Your task to perform on an android device: open a bookmark in the chrome app Image 0: 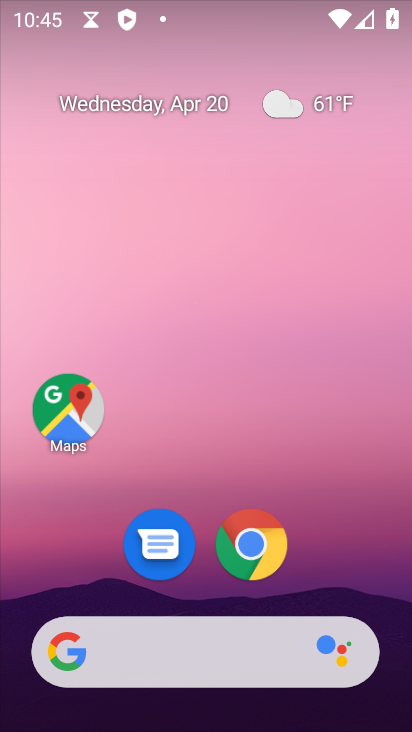
Step 0: drag from (151, 653) to (277, 163)
Your task to perform on an android device: open a bookmark in the chrome app Image 1: 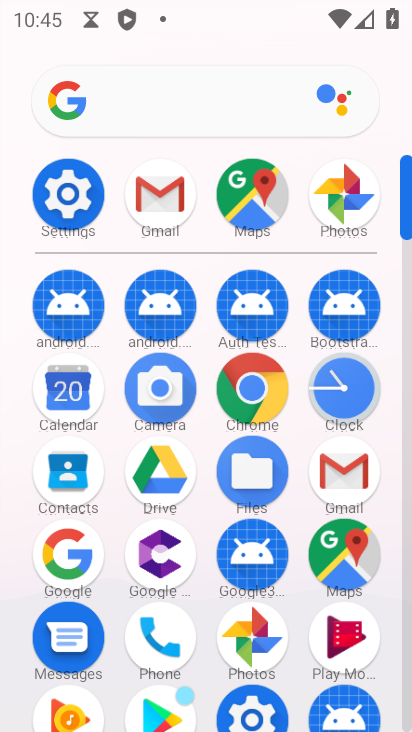
Step 1: click (250, 394)
Your task to perform on an android device: open a bookmark in the chrome app Image 2: 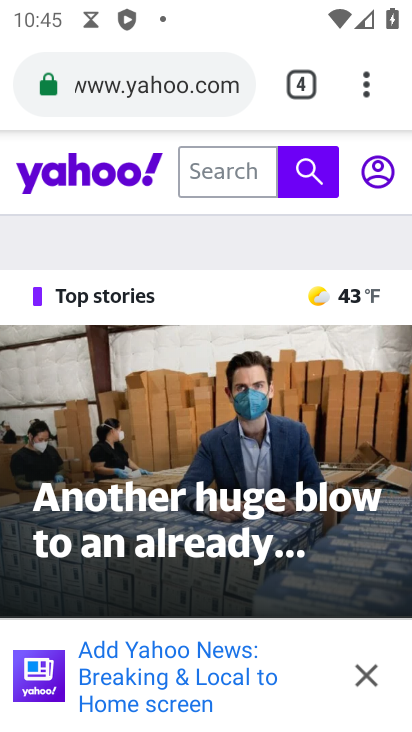
Step 2: click (360, 102)
Your task to perform on an android device: open a bookmark in the chrome app Image 3: 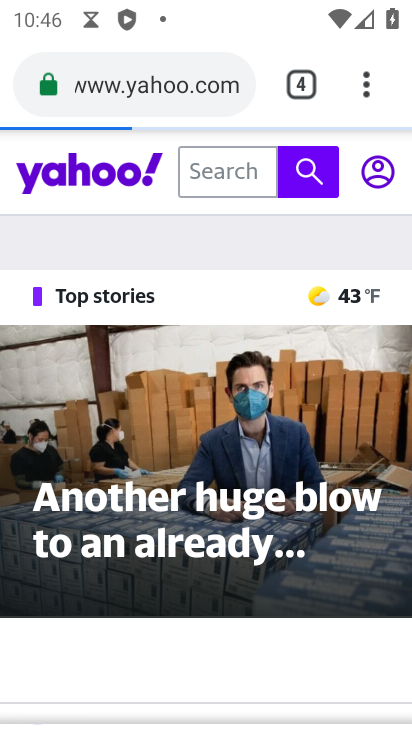
Step 3: click (353, 103)
Your task to perform on an android device: open a bookmark in the chrome app Image 4: 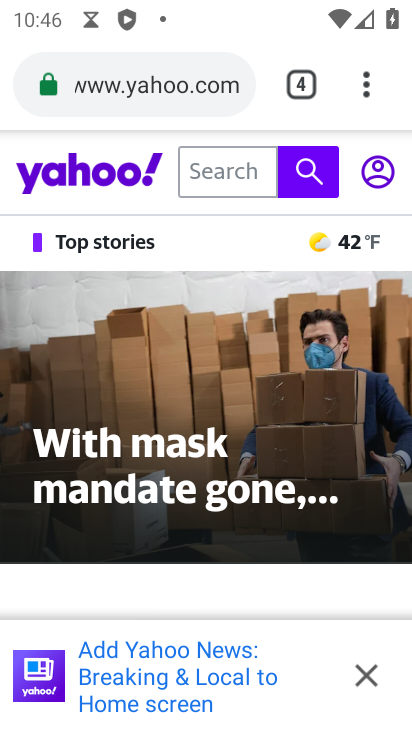
Step 4: click (354, 99)
Your task to perform on an android device: open a bookmark in the chrome app Image 5: 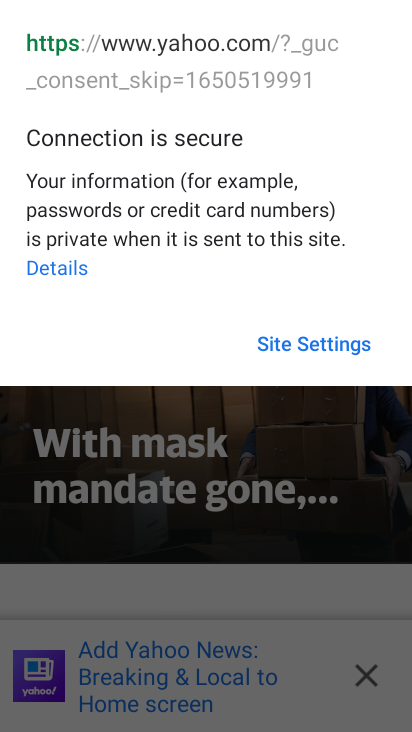
Step 5: press back button
Your task to perform on an android device: open a bookmark in the chrome app Image 6: 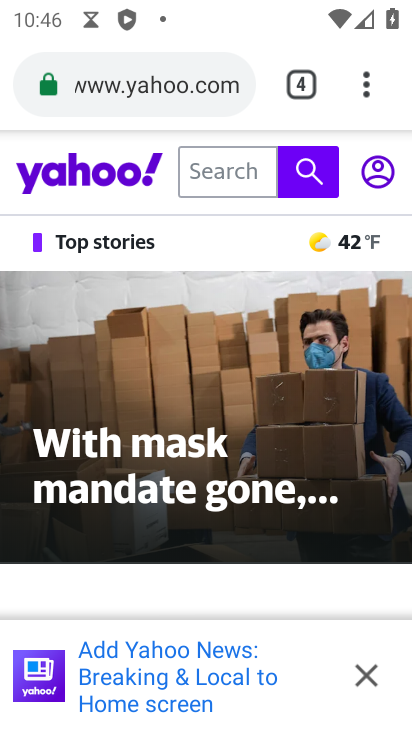
Step 6: click (356, 96)
Your task to perform on an android device: open a bookmark in the chrome app Image 7: 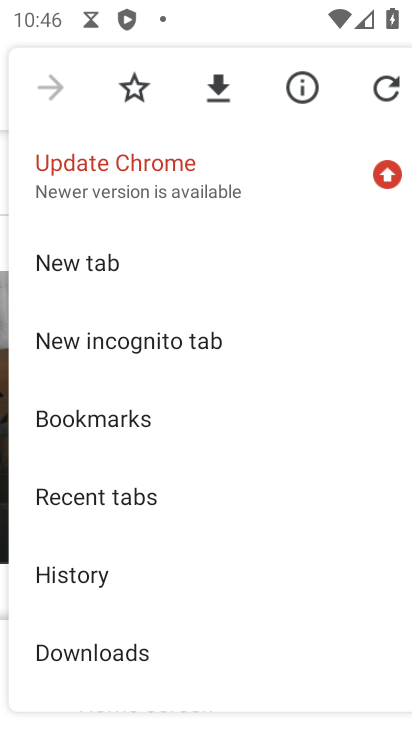
Step 7: click (87, 417)
Your task to perform on an android device: open a bookmark in the chrome app Image 8: 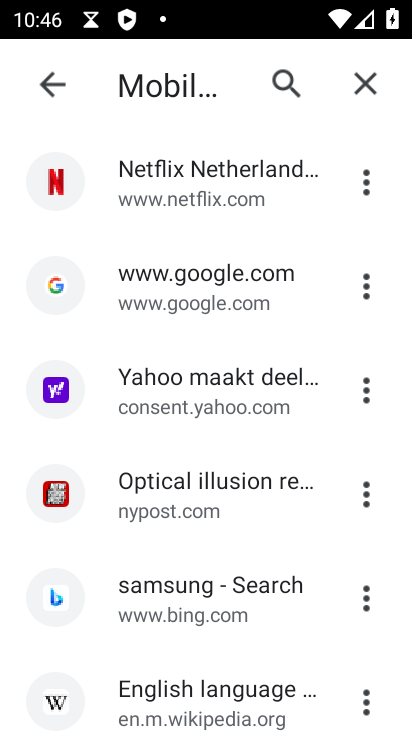
Step 8: task complete